Your task to perform on an android device: turn smart compose on in the gmail app Image 0: 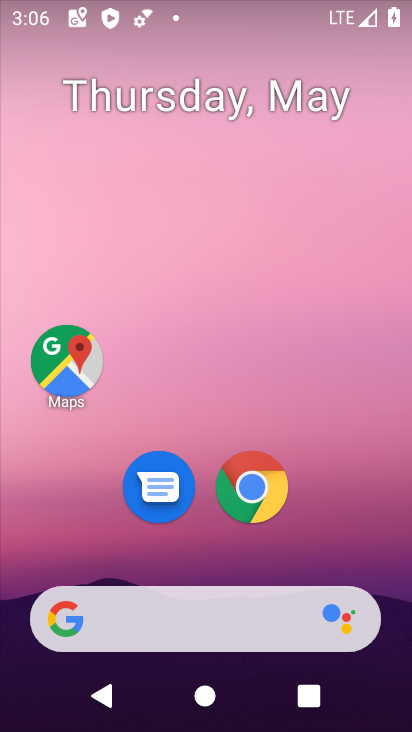
Step 0: drag from (236, 591) to (290, 186)
Your task to perform on an android device: turn smart compose on in the gmail app Image 1: 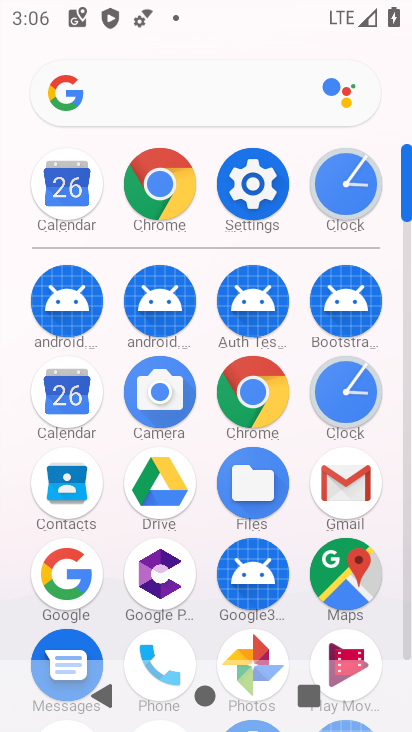
Step 1: click (358, 485)
Your task to perform on an android device: turn smart compose on in the gmail app Image 2: 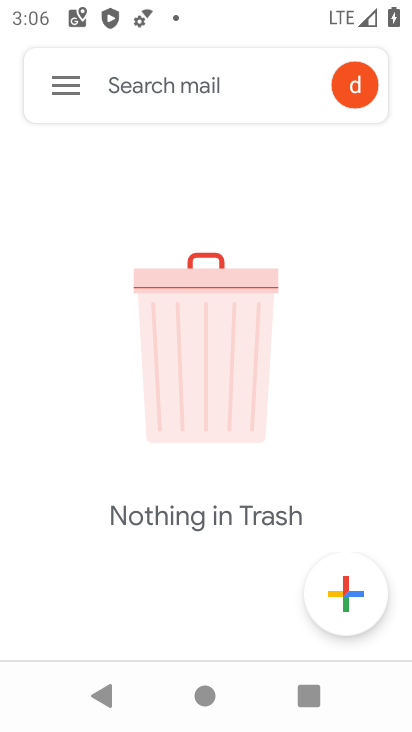
Step 2: click (67, 106)
Your task to perform on an android device: turn smart compose on in the gmail app Image 3: 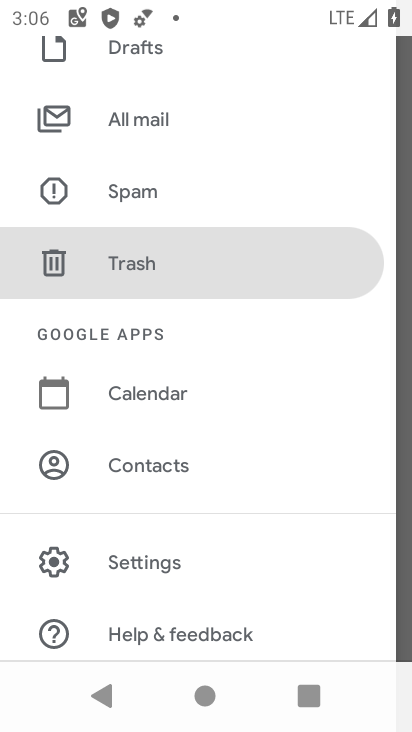
Step 3: drag from (221, 500) to (280, 194)
Your task to perform on an android device: turn smart compose on in the gmail app Image 4: 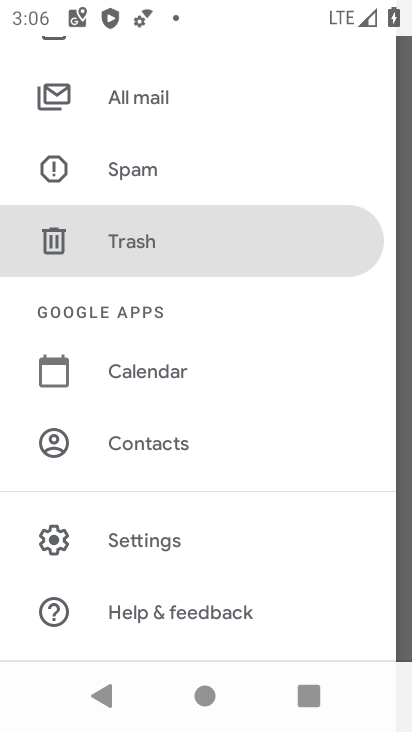
Step 4: click (160, 544)
Your task to perform on an android device: turn smart compose on in the gmail app Image 5: 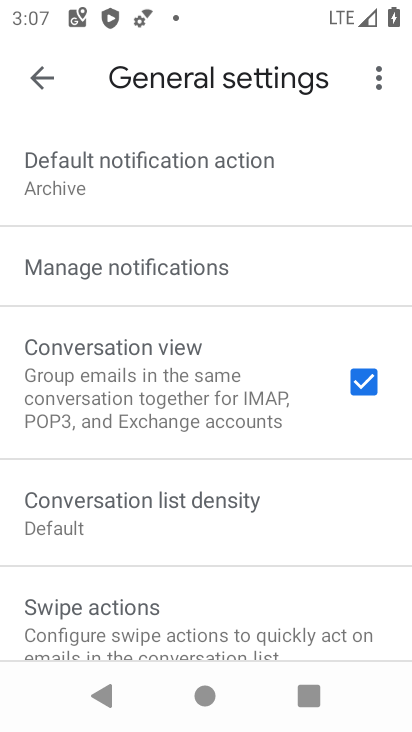
Step 5: click (44, 79)
Your task to perform on an android device: turn smart compose on in the gmail app Image 6: 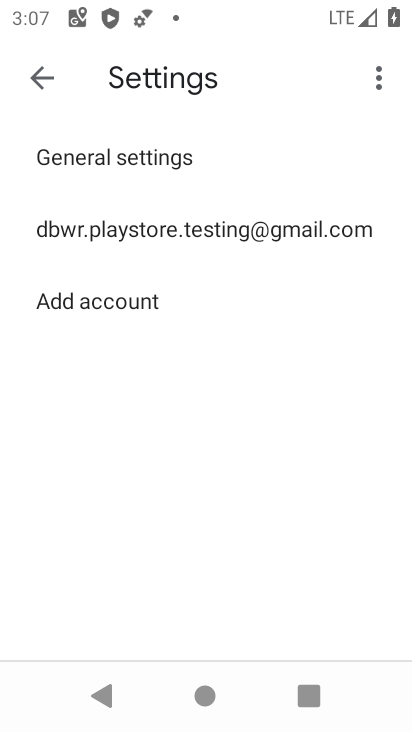
Step 6: click (109, 240)
Your task to perform on an android device: turn smart compose on in the gmail app Image 7: 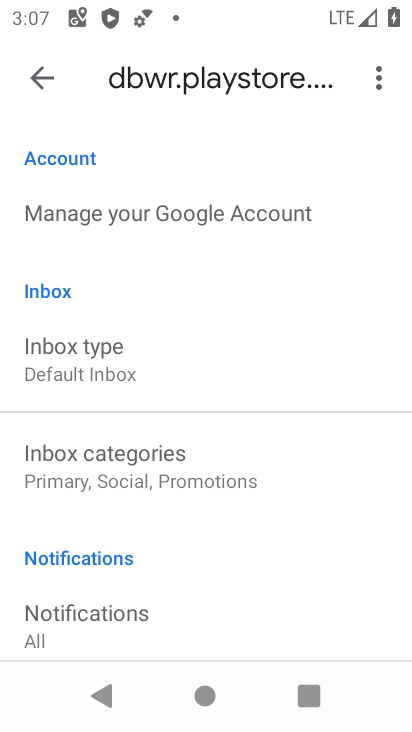
Step 7: task complete